Your task to perform on an android device: move an email to a new category in the gmail app Image 0: 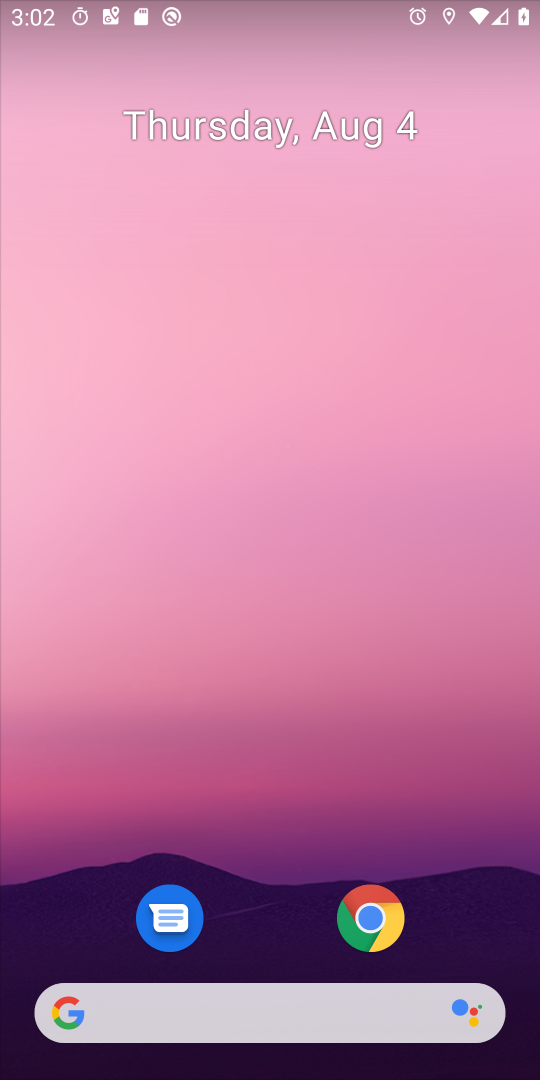
Step 0: drag from (283, 891) to (283, 241)
Your task to perform on an android device: move an email to a new category in the gmail app Image 1: 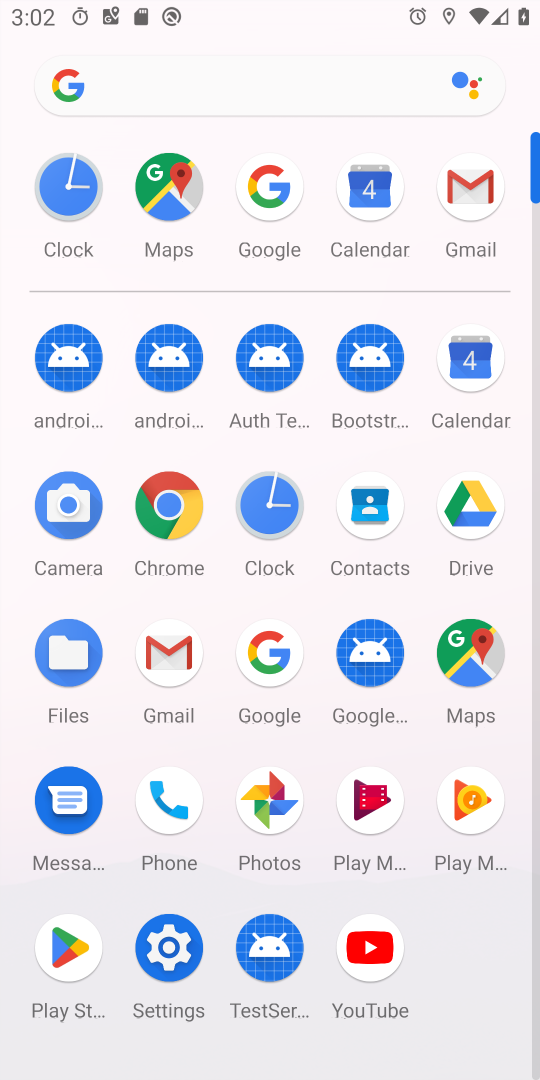
Step 1: click (155, 640)
Your task to perform on an android device: move an email to a new category in the gmail app Image 2: 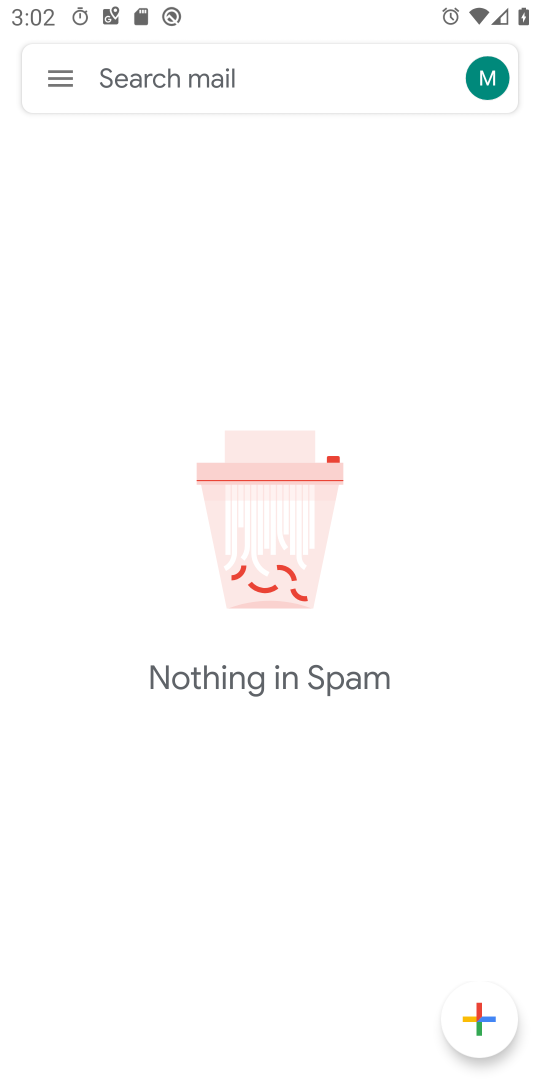
Step 2: click (53, 69)
Your task to perform on an android device: move an email to a new category in the gmail app Image 3: 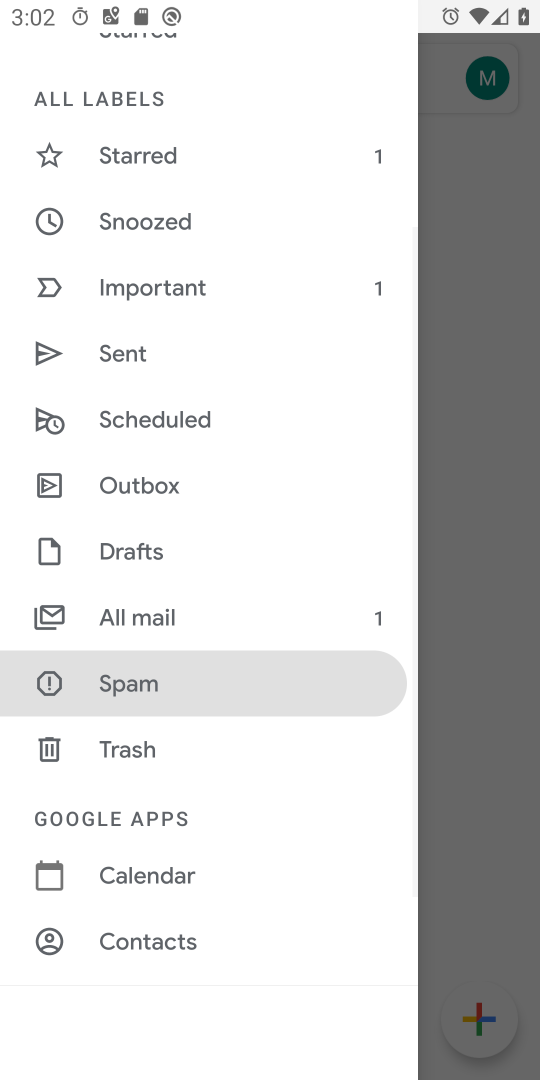
Step 3: click (157, 612)
Your task to perform on an android device: move an email to a new category in the gmail app Image 4: 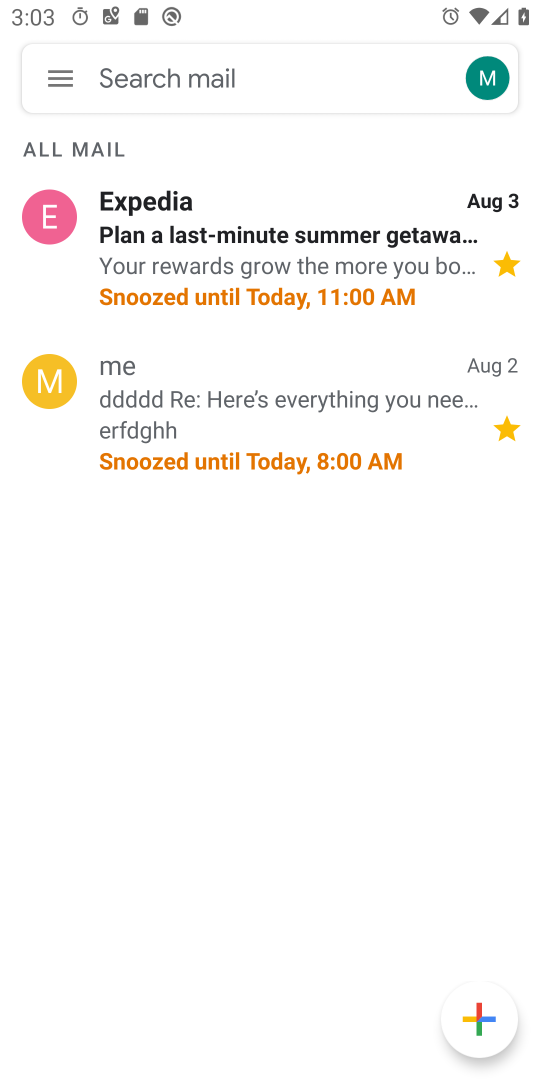
Step 4: click (226, 279)
Your task to perform on an android device: move an email to a new category in the gmail app Image 5: 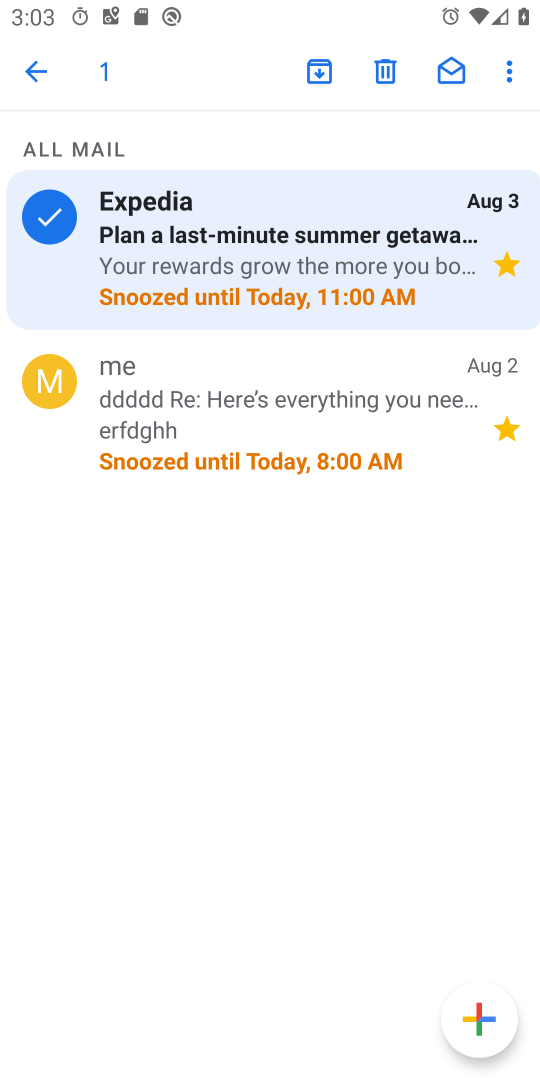
Step 5: click (513, 81)
Your task to perform on an android device: move an email to a new category in the gmail app Image 6: 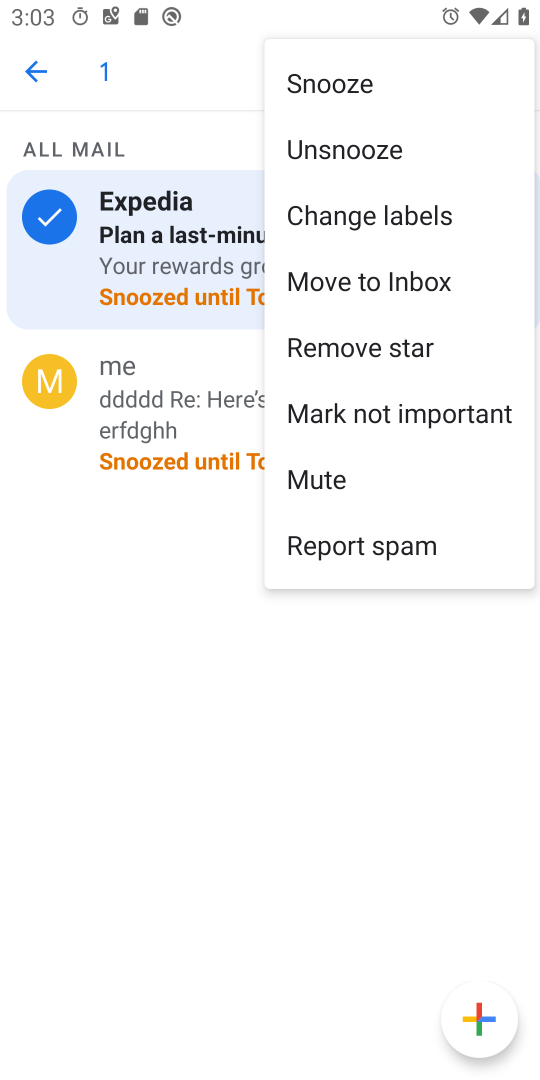
Step 6: click (398, 275)
Your task to perform on an android device: move an email to a new category in the gmail app Image 7: 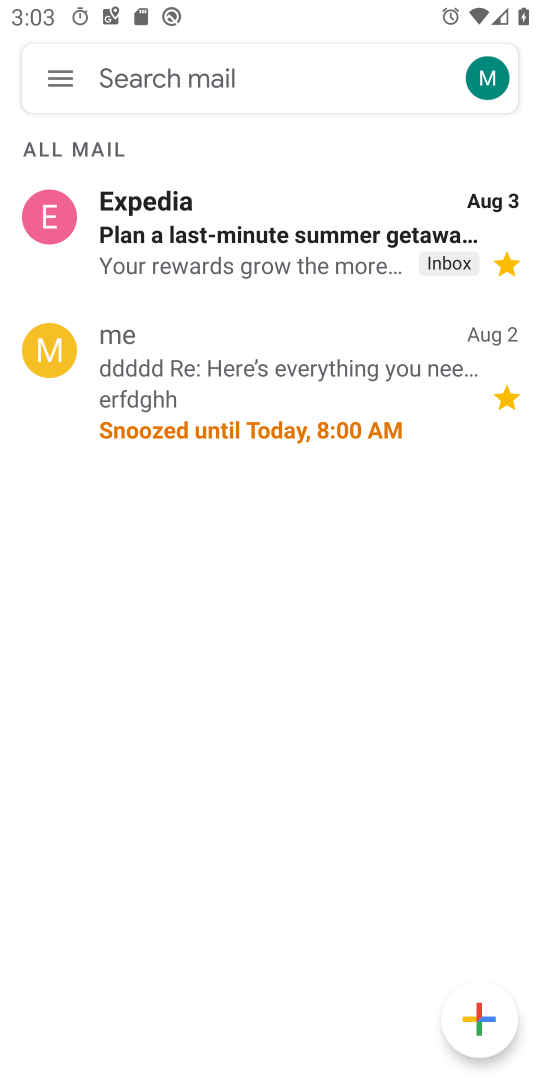
Step 7: task complete